Your task to perform on an android device: Find coffee shops on Maps Image 0: 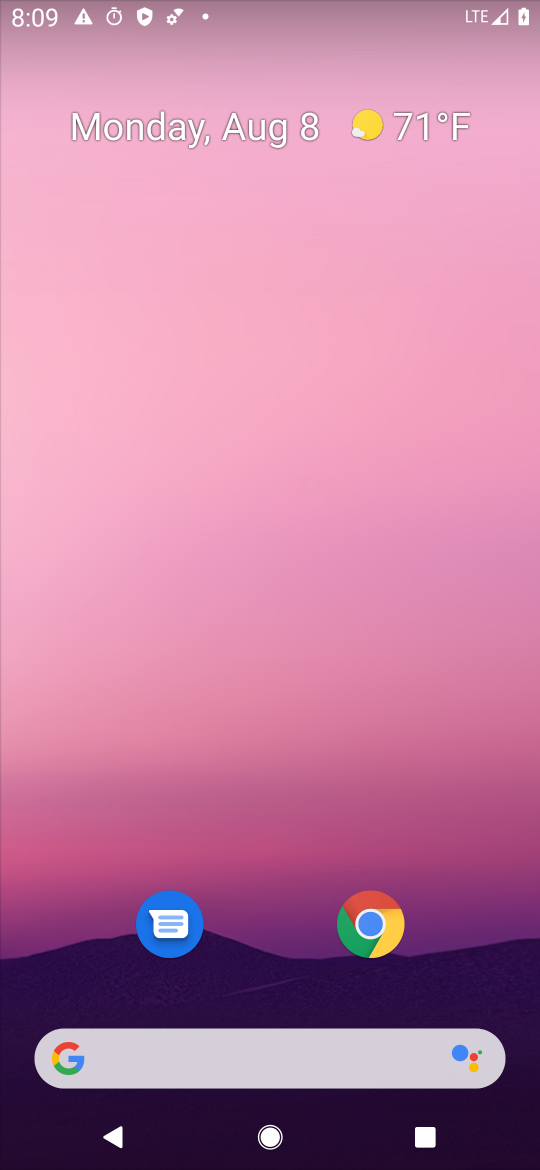
Step 0: drag from (288, 757) to (291, 524)
Your task to perform on an android device: Find coffee shops on Maps Image 1: 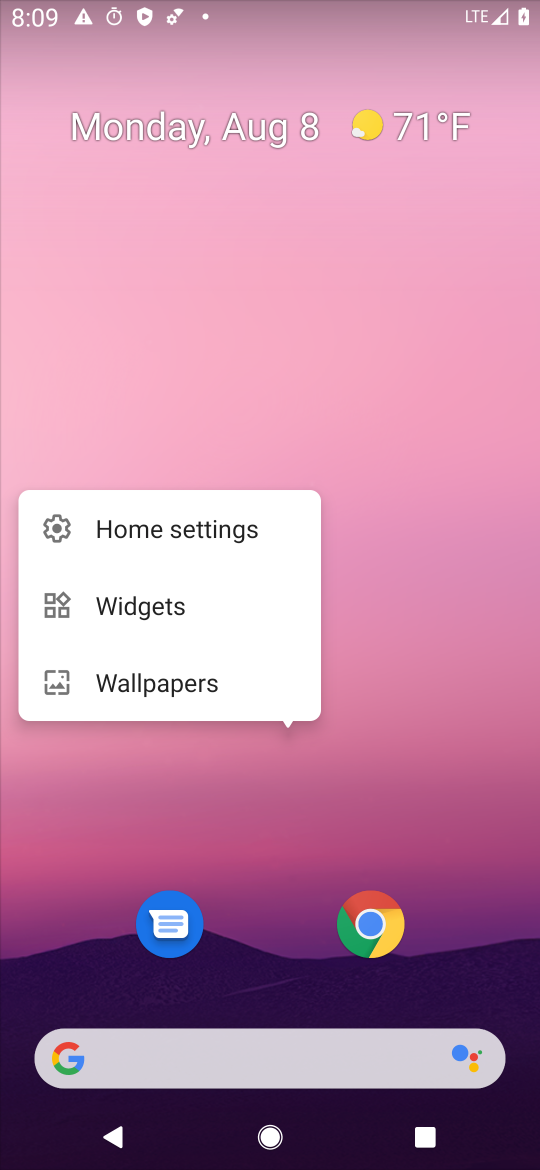
Step 1: drag from (280, 966) to (532, 175)
Your task to perform on an android device: Find coffee shops on Maps Image 2: 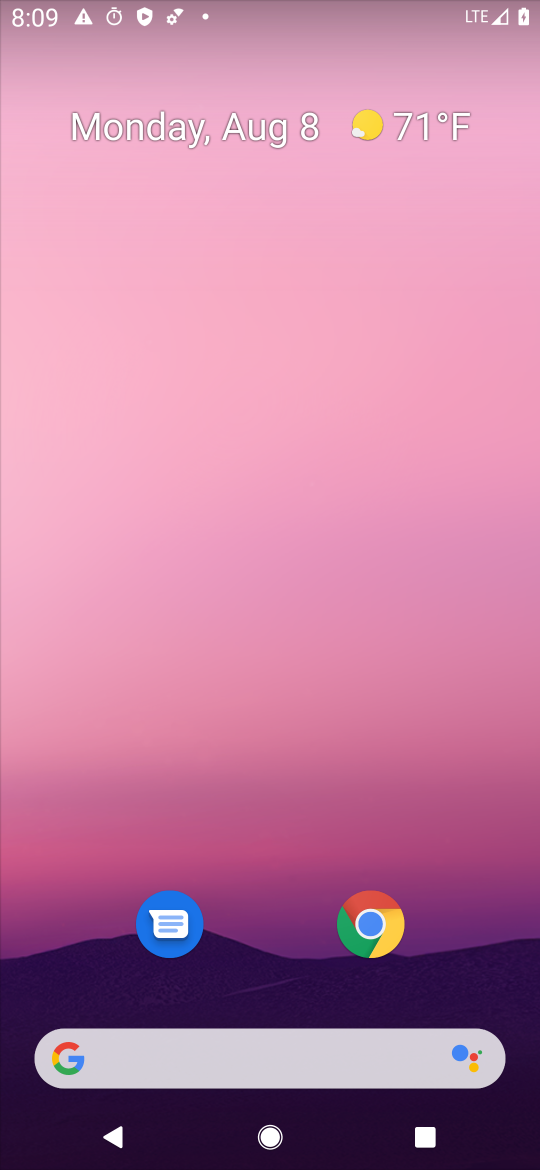
Step 2: drag from (311, 1036) to (365, 2)
Your task to perform on an android device: Find coffee shops on Maps Image 3: 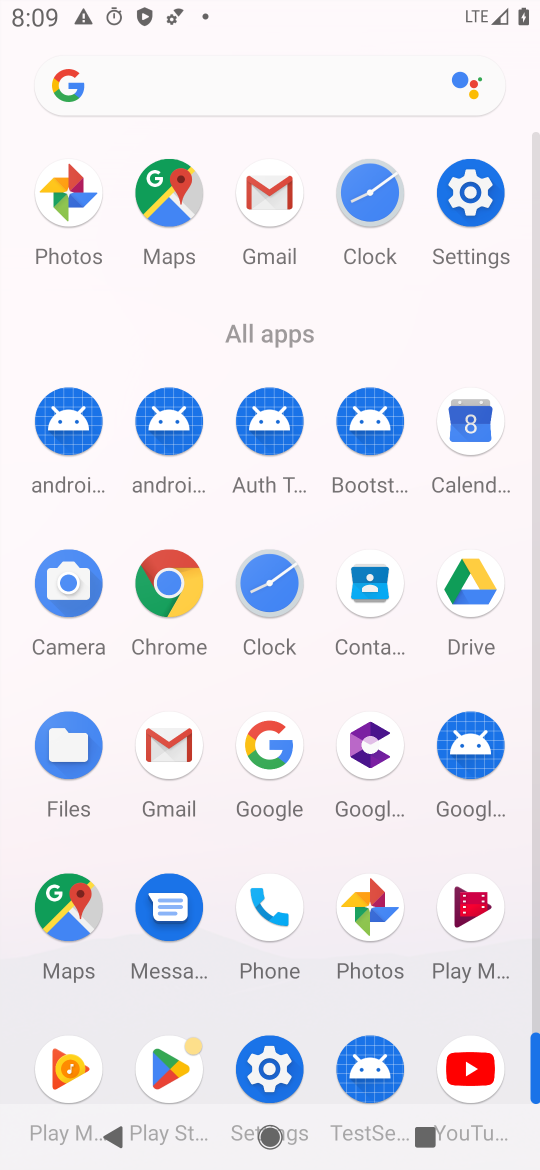
Step 3: click (162, 191)
Your task to perform on an android device: Find coffee shops on Maps Image 4: 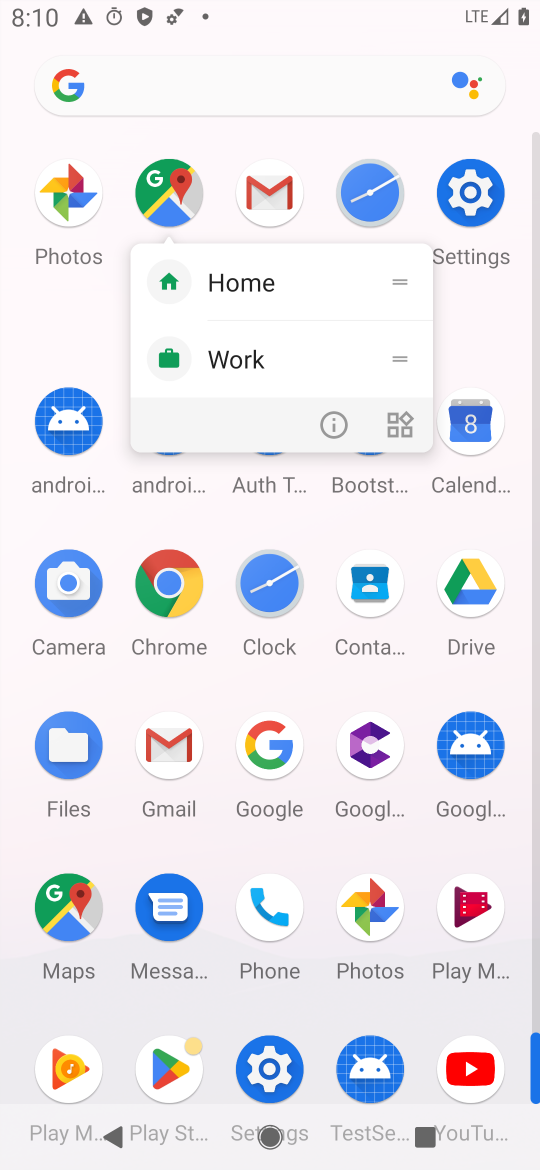
Step 4: click (347, 422)
Your task to perform on an android device: Find coffee shops on Maps Image 5: 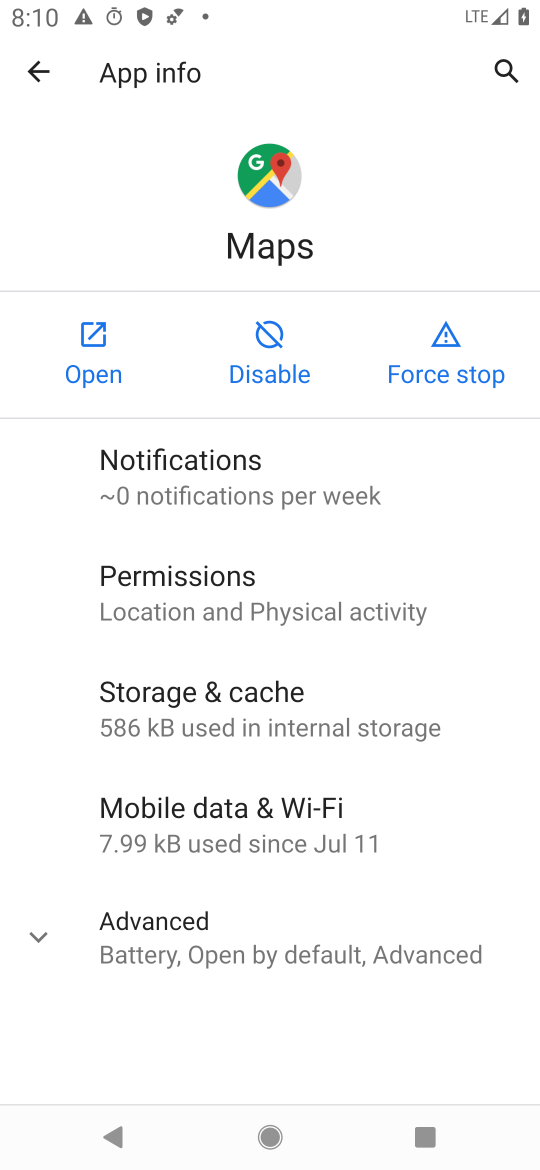
Step 5: click (98, 321)
Your task to perform on an android device: Find coffee shops on Maps Image 6: 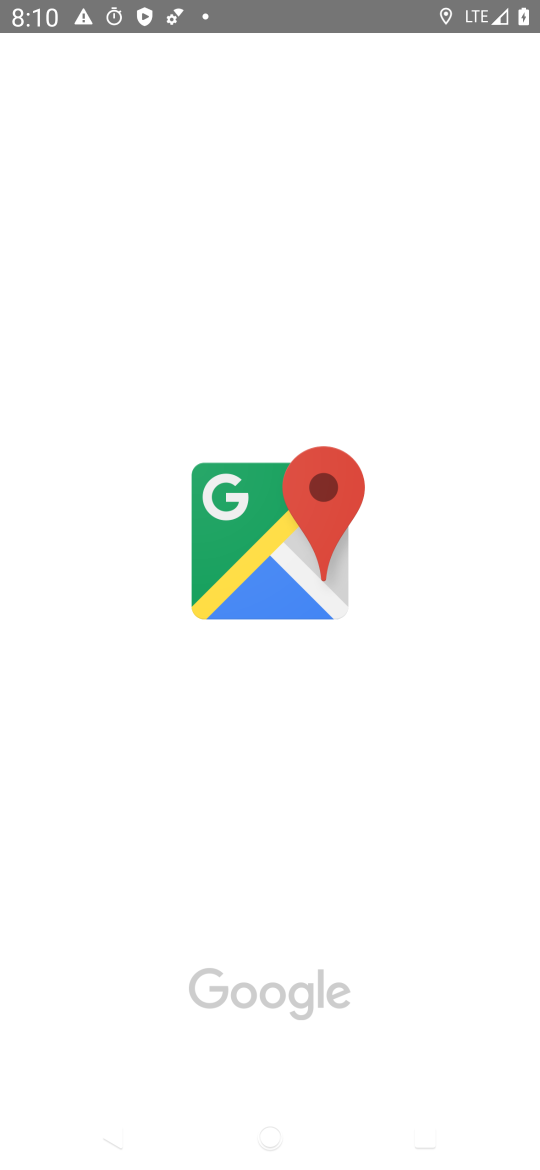
Step 6: click (78, 360)
Your task to perform on an android device: Find coffee shops on Maps Image 7: 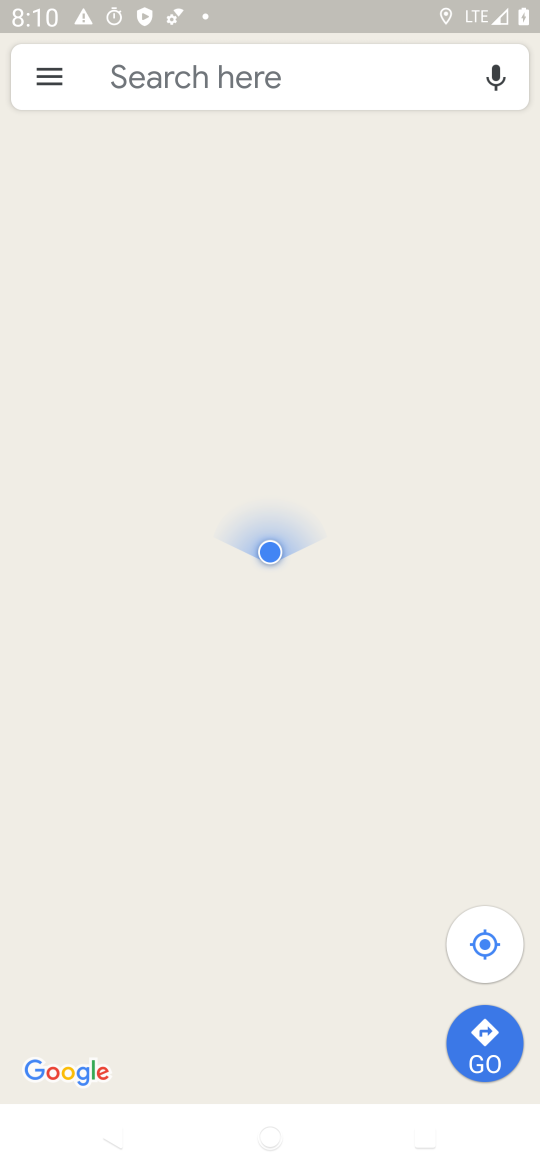
Step 7: click (238, 77)
Your task to perform on an android device: Find coffee shops on Maps Image 8: 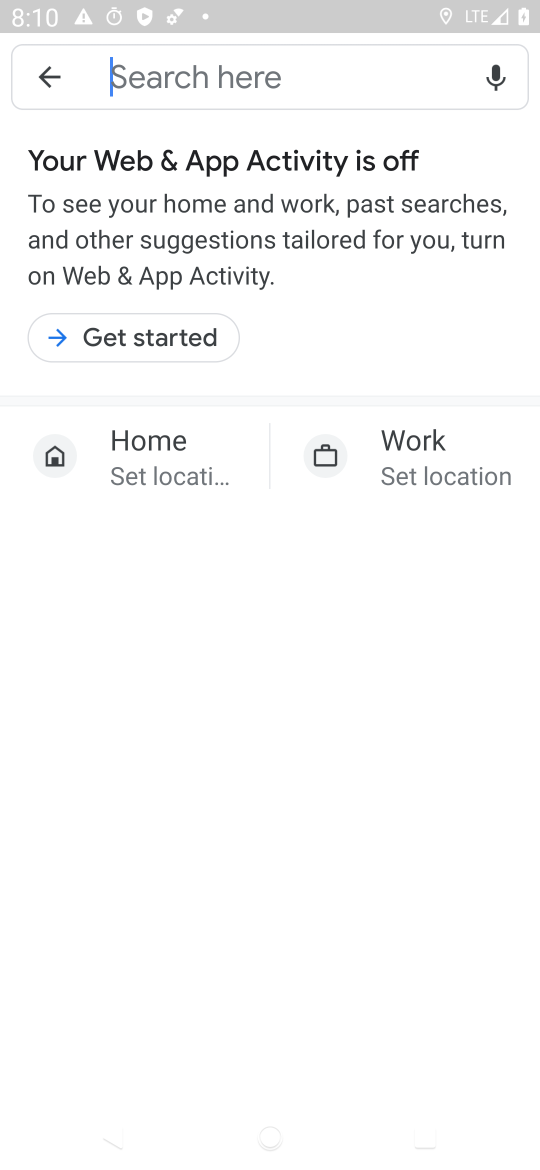
Step 8: click (234, 70)
Your task to perform on an android device: Find coffee shops on Maps Image 9: 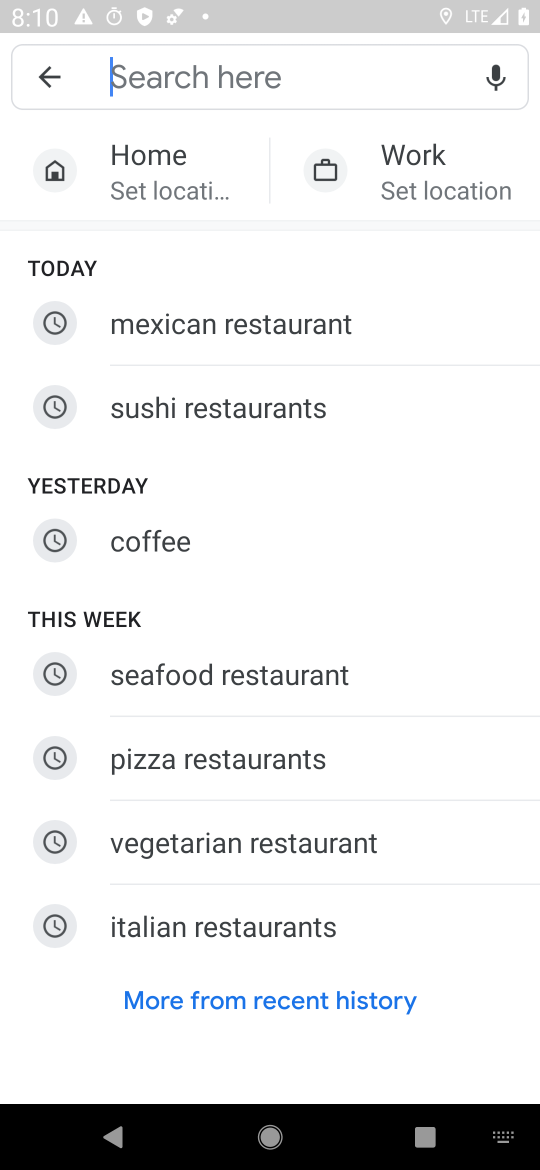
Step 9: click (215, 510)
Your task to perform on an android device: Find coffee shops on Maps Image 10: 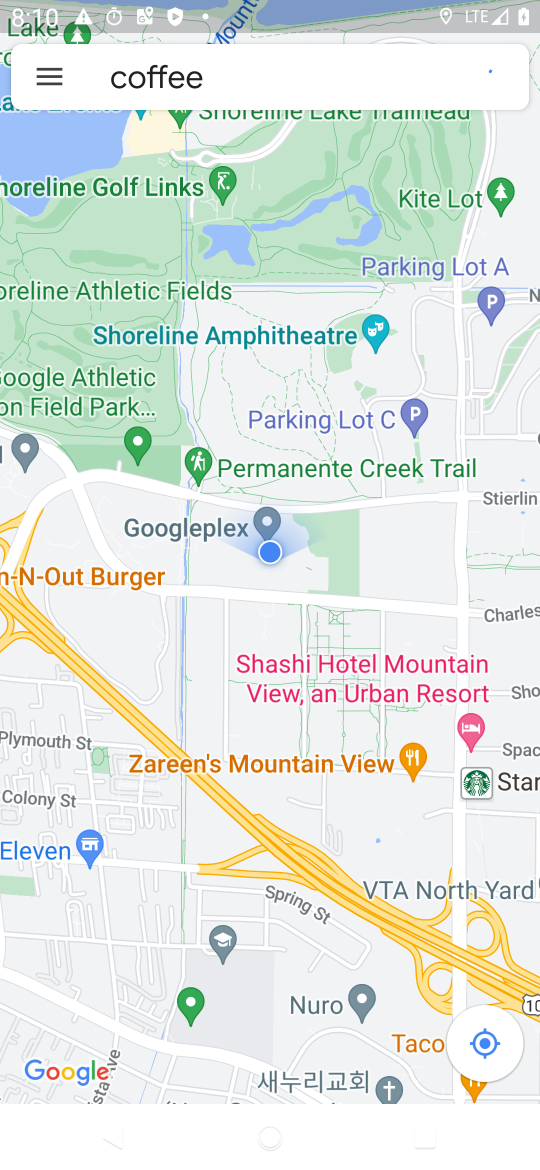
Step 10: task complete